Your task to perform on an android device: open a new tab in the chrome app Image 0: 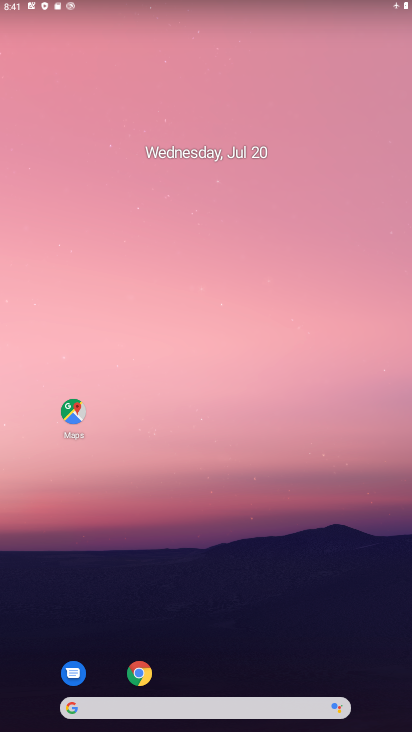
Step 0: drag from (196, 718) to (189, 323)
Your task to perform on an android device: open a new tab in the chrome app Image 1: 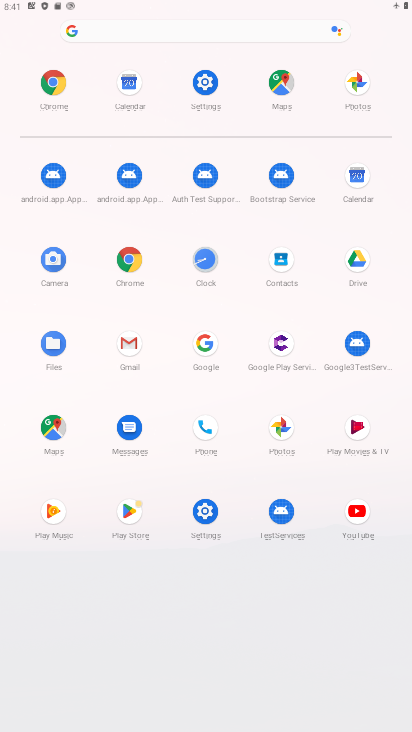
Step 1: click (132, 259)
Your task to perform on an android device: open a new tab in the chrome app Image 2: 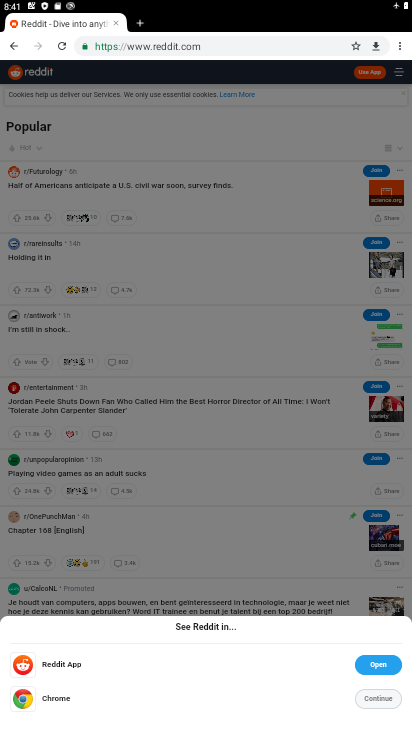
Step 2: click (399, 48)
Your task to perform on an android device: open a new tab in the chrome app Image 3: 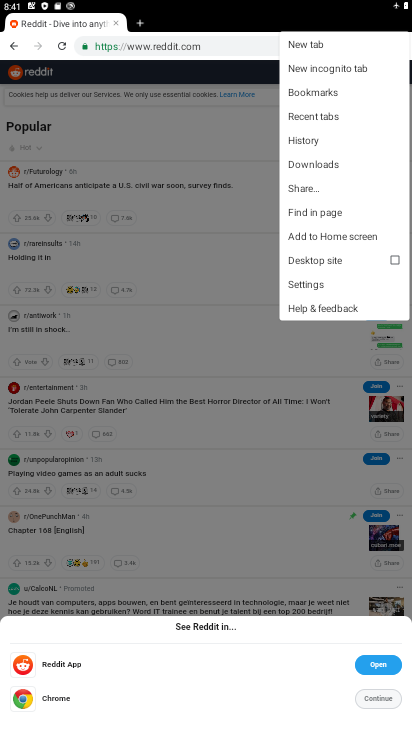
Step 3: click (311, 44)
Your task to perform on an android device: open a new tab in the chrome app Image 4: 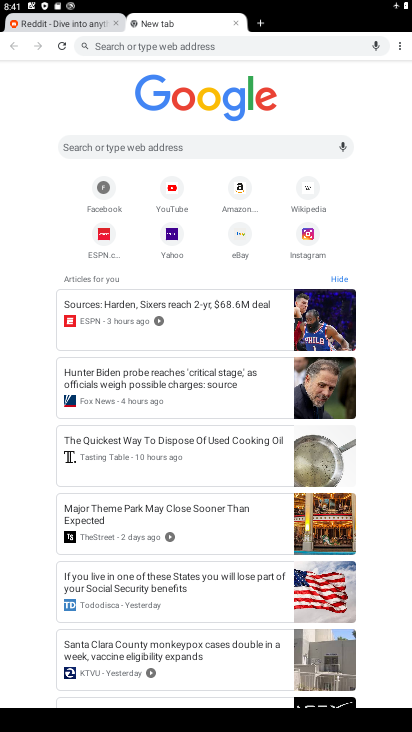
Step 4: task complete